Your task to perform on an android device: Do I have any events tomorrow? Image 0: 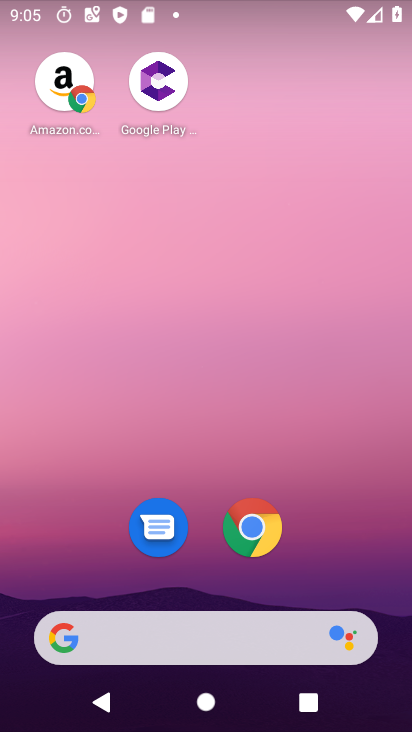
Step 0: drag from (336, 442) to (26, 548)
Your task to perform on an android device: Do I have any events tomorrow? Image 1: 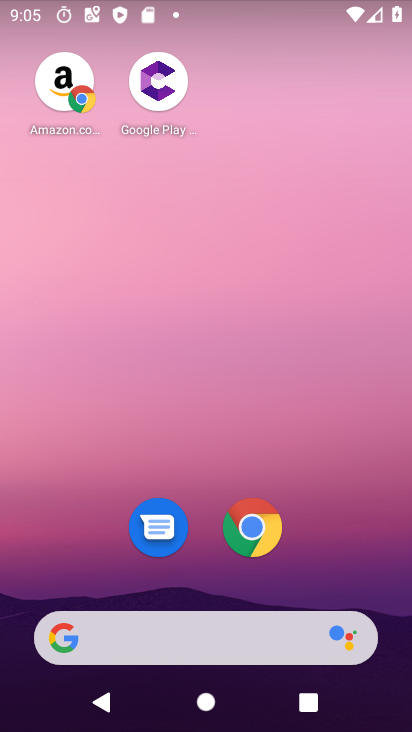
Step 1: drag from (359, 493) to (389, 13)
Your task to perform on an android device: Do I have any events tomorrow? Image 2: 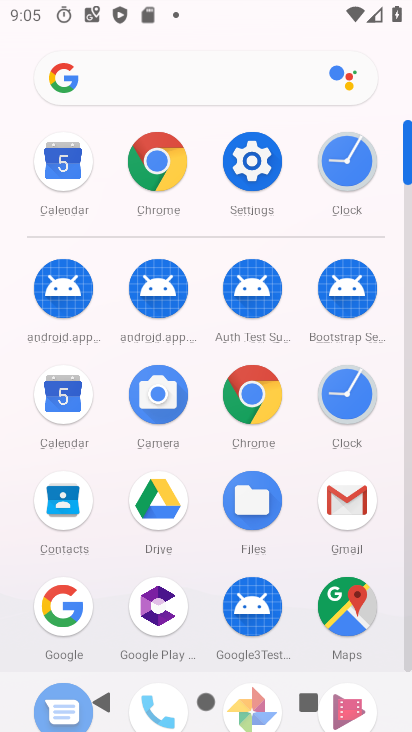
Step 2: click (76, 160)
Your task to perform on an android device: Do I have any events tomorrow? Image 3: 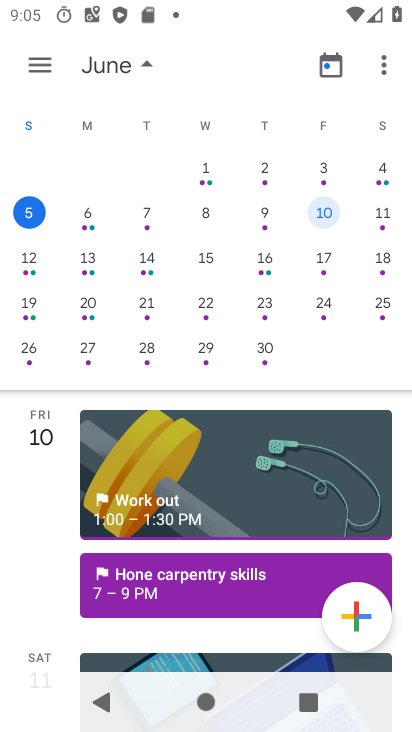
Step 3: click (395, 213)
Your task to perform on an android device: Do I have any events tomorrow? Image 4: 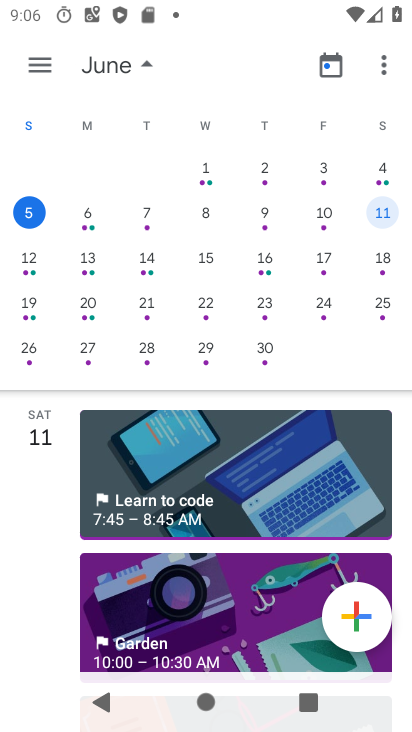
Step 4: click (67, 219)
Your task to perform on an android device: Do I have any events tomorrow? Image 5: 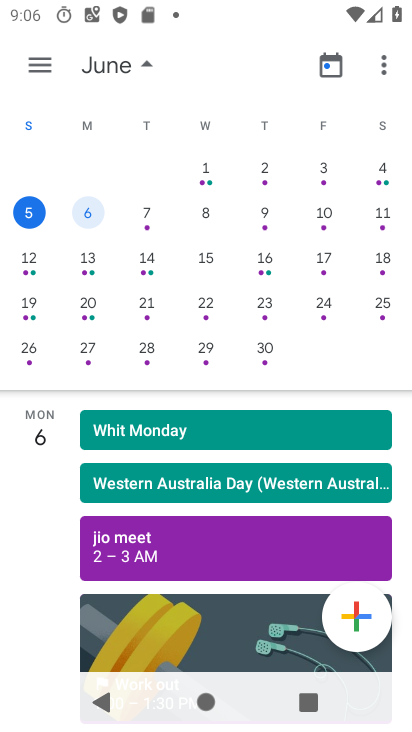
Step 5: task complete